Your task to perform on an android device: Search for pizza restaurants on Maps Image 0: 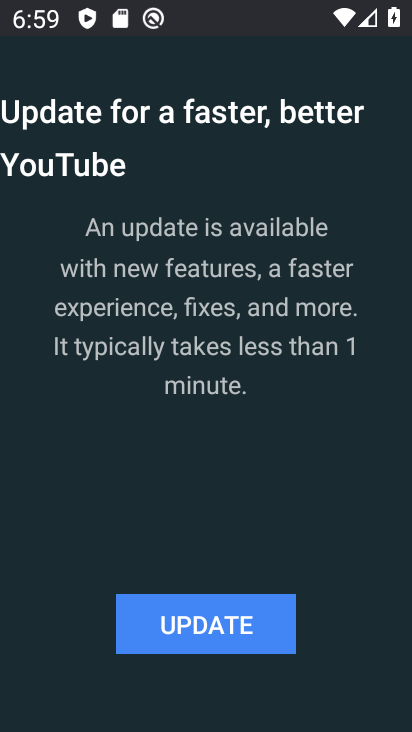
Step 0: press back button
Your task to perform on an android device: Search for pizza restaurants on Maps Image 1: 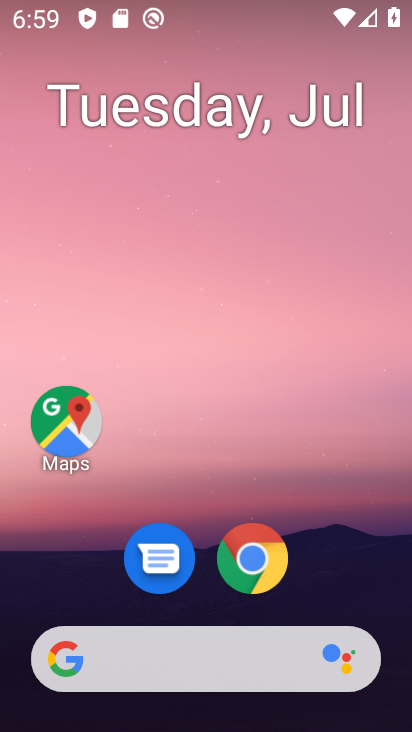
Step 1: click (94, 411)
Your task to perform on an android device: Search for pizza restaurants on Maps Image 2: 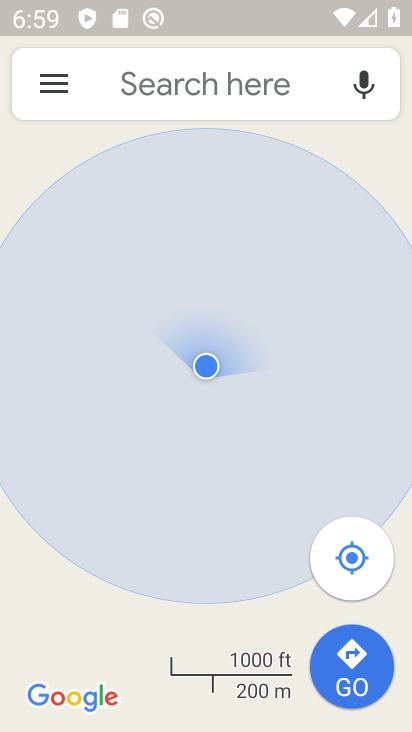
Step 2: click (158, 77)
Your task to perform on an android device: Search for pizza restaurants on Maps Image 3: 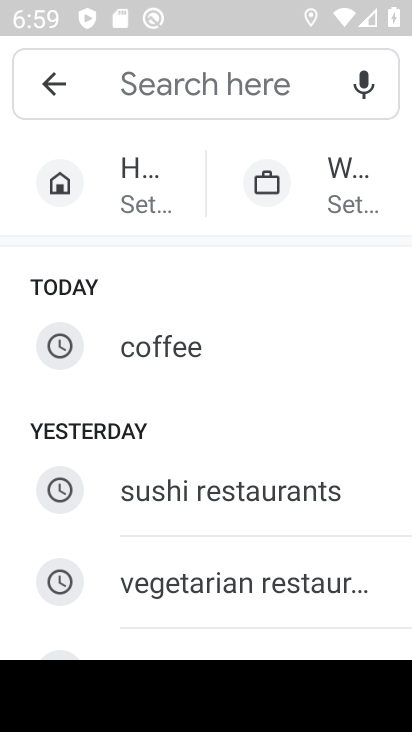
Step 3: type "pizza restaurants"
Your task to perform on an android device: Search for pizza restaurants on Maps Image 4: 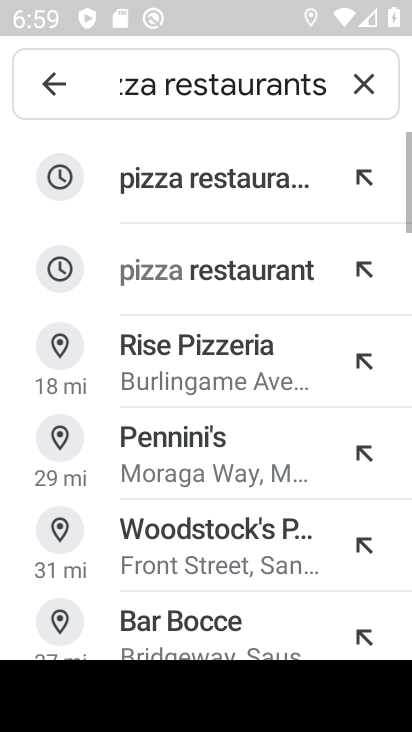
Step 4: click (184, 187)
Your task to perform on an android device: Search for pizza restaurants on Maps Image 5: 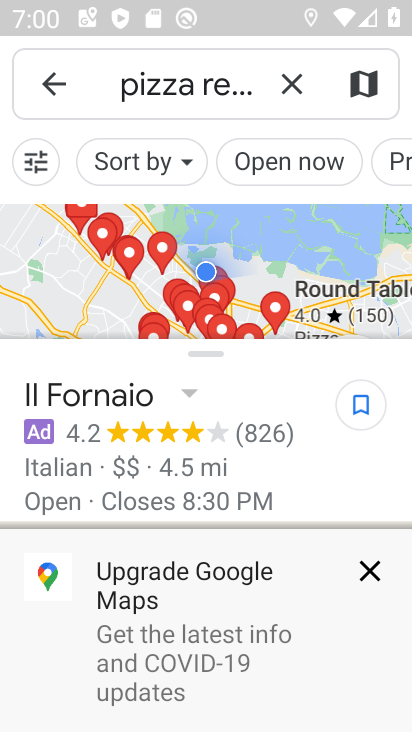
Step 5: task complete